Your task to perform on an android device: turn notification dots on Image 0: 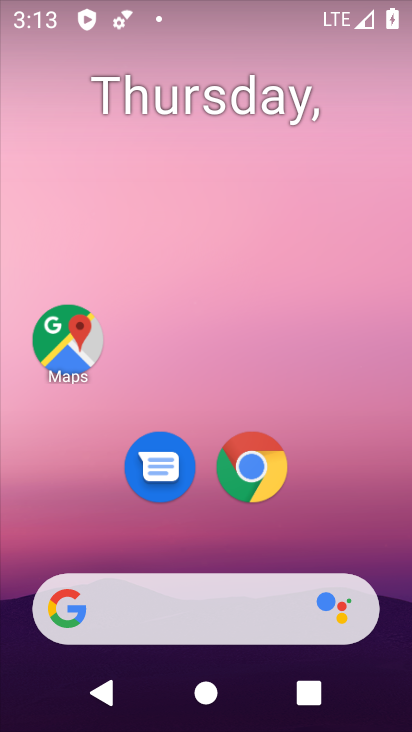
Step 0: drag from (156, 605) to (274, 40)
Your task to perform on an android device: turn notification dots on Image 1: 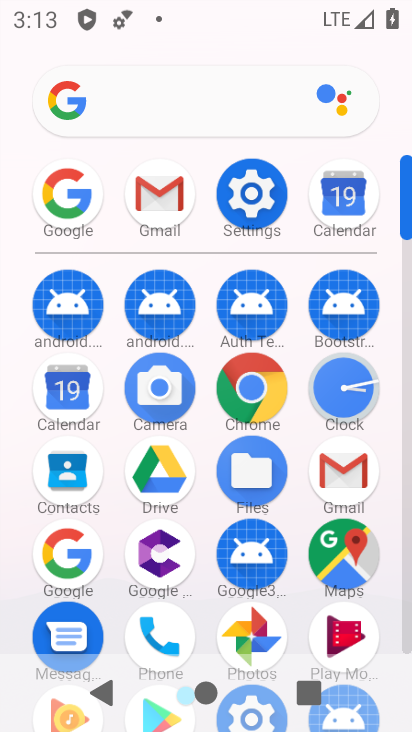
Step 1: click (257, 205)
Your task to perform on an android device: turn notification dots on Image 2: 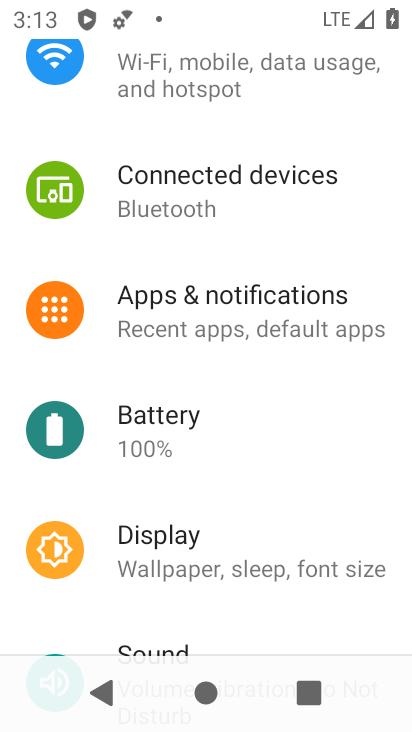
Step 2: click (266, 309)
Your task to perform on an android device: turn notification dots on Image 3: 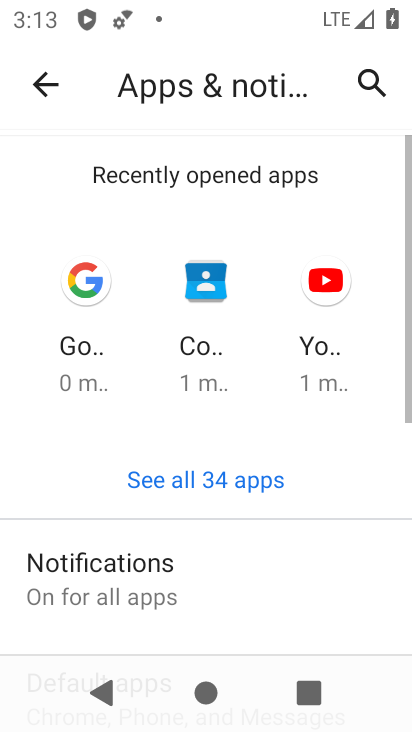
Step 3: drag from (222, 451) to (286, 2)
Your task to perform on an android device: turn notification dots on Image 4: 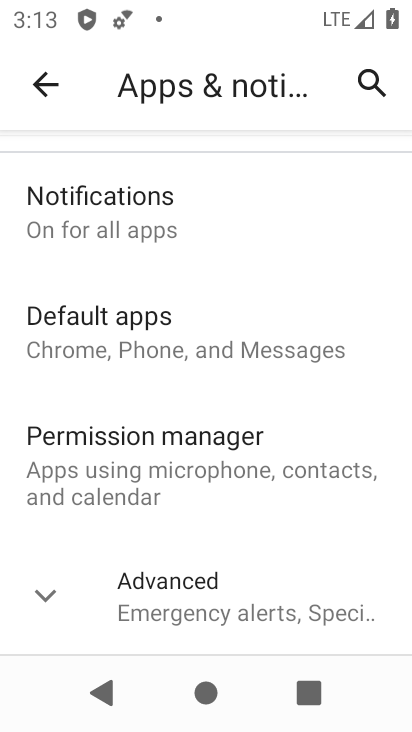
Step 4: drag from (156, 568) to (177, 260)
Your task to perform on an android device: turn notification dots on Image 5: 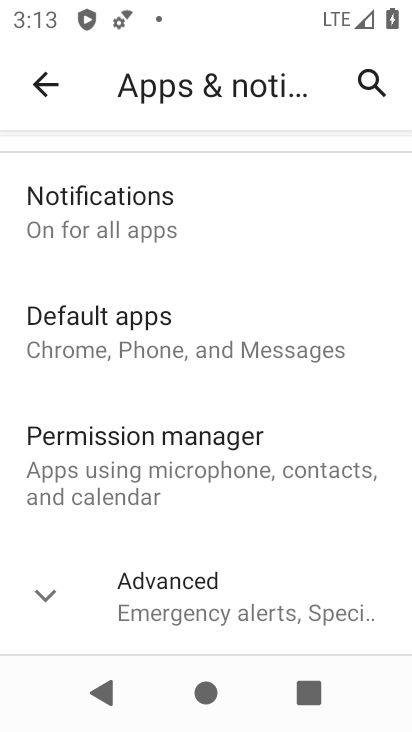
Step 5: click (154, 583)
Your task to perform on an android device: turn notification dots on Image 6: 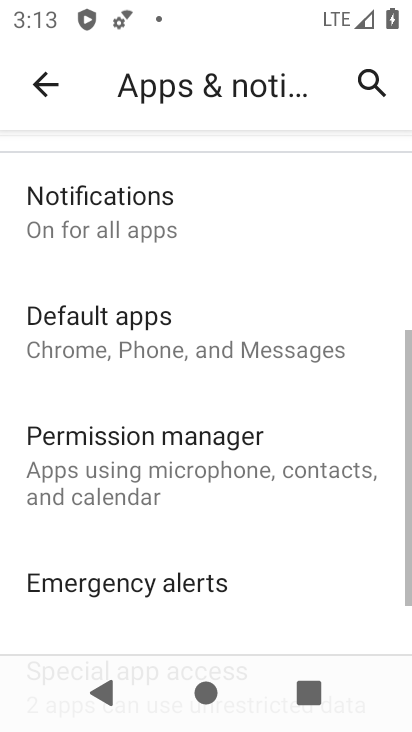
Step 6: drag from (150, 570) to (200, 228)
Your task to perform on an android device: turn notification dots on Image 7: 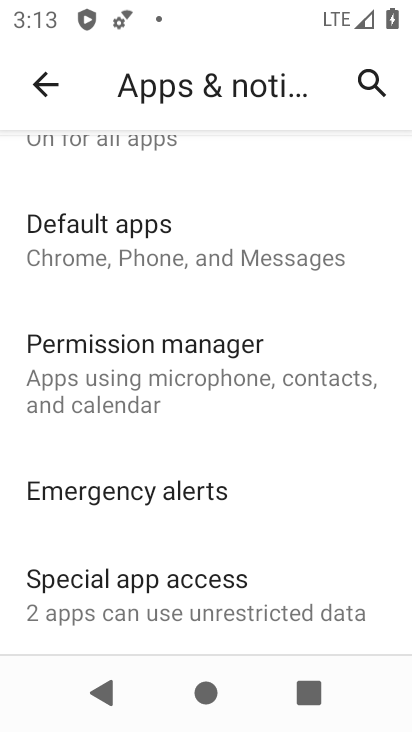
Step 7: drag from (184, 204) to (172, 729)
Your task to perform on an android device: turn notification dots on Image 8: 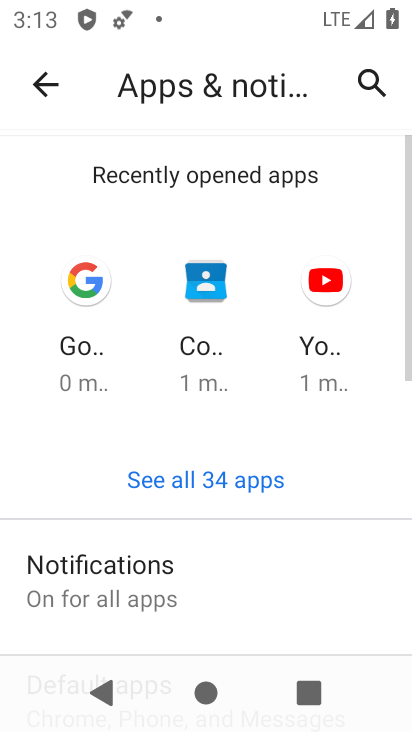
Step 8: click (130, 553)
Your task to perform on an android device: turn notification dots on Image 9: 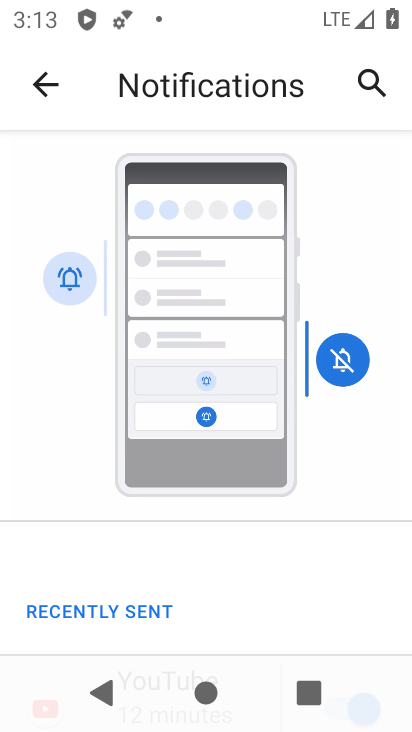
Step 9: drag from (179, 575) to (206, 75)
Your task to perform on an android device: turn notification dots on Image 10: 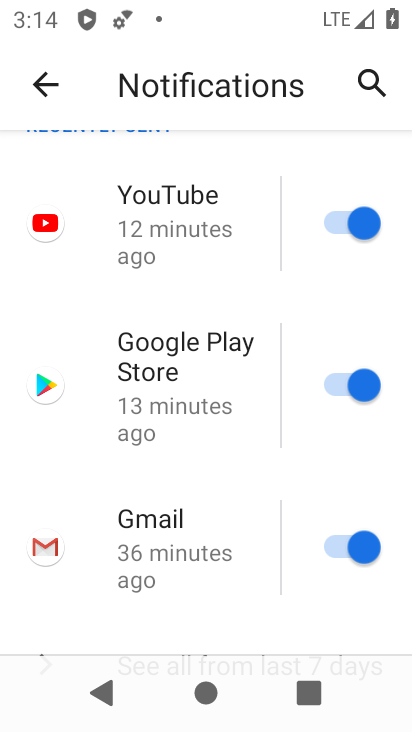
Step 10: drag from (217, 599) to (250, 131)
Your task to perform on an android device: turn notification dots on Image 11: 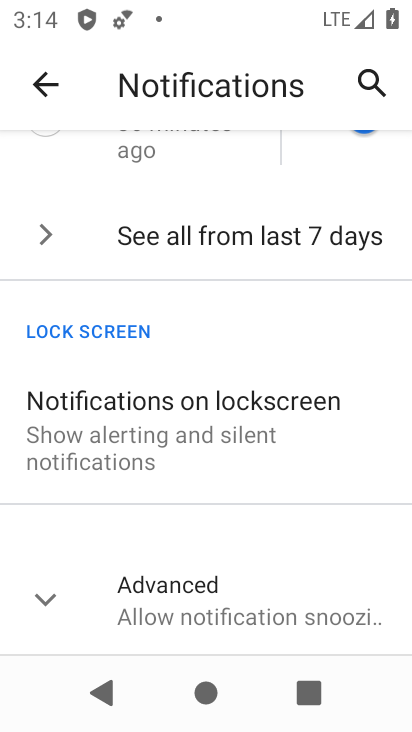
Step 11: click (196, 586)
Your task to perform on an android device: turn notification dots on Image 12: 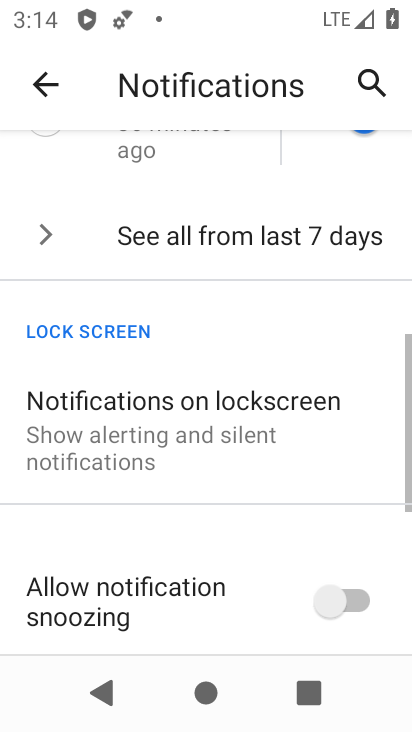
Step 12: task complete